Your task to perform on an android device: open app "Etsy: Buy & Sell Unique Items" Image 0: 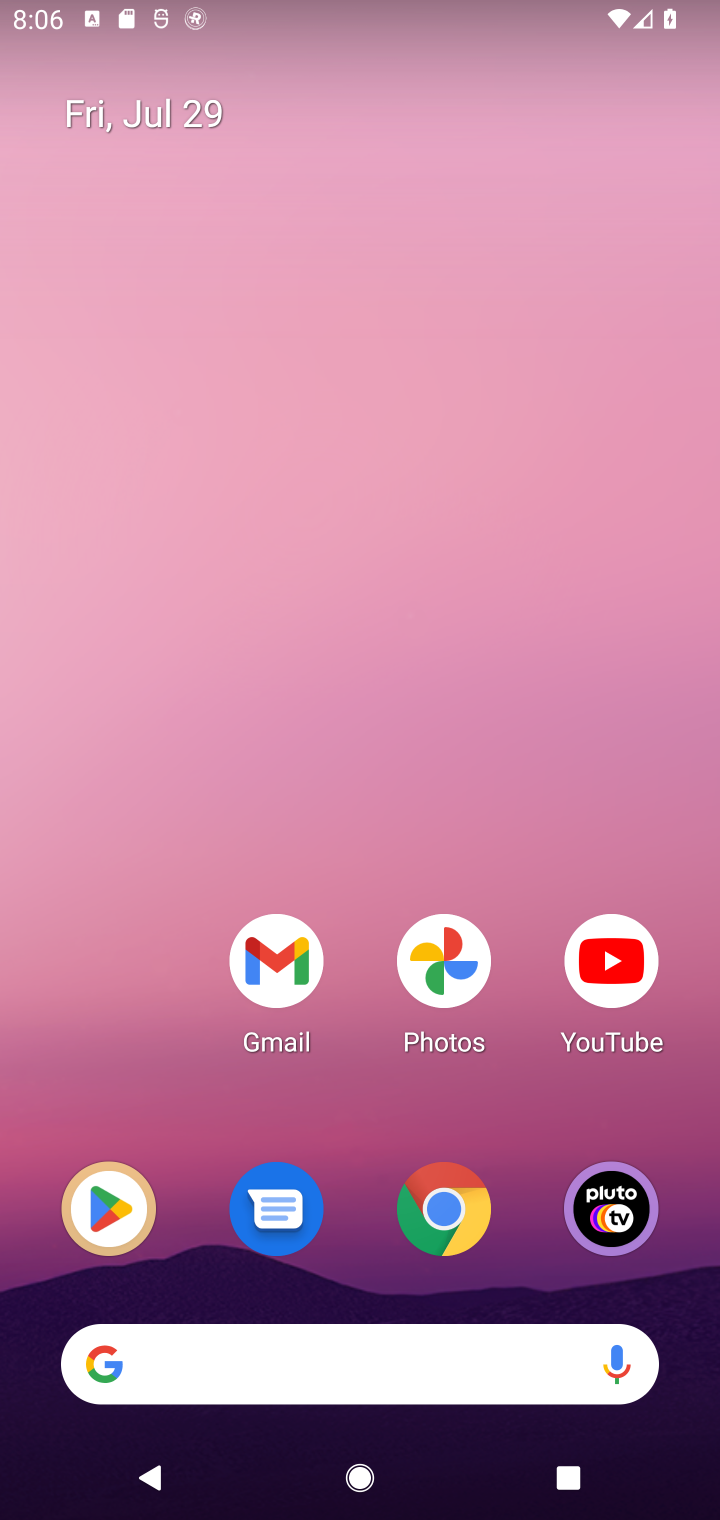
Step 0: click (103, 1221)
Your task to perform on an android device: open app "Etsy: Buy & Sell Unique Items" Image 1: 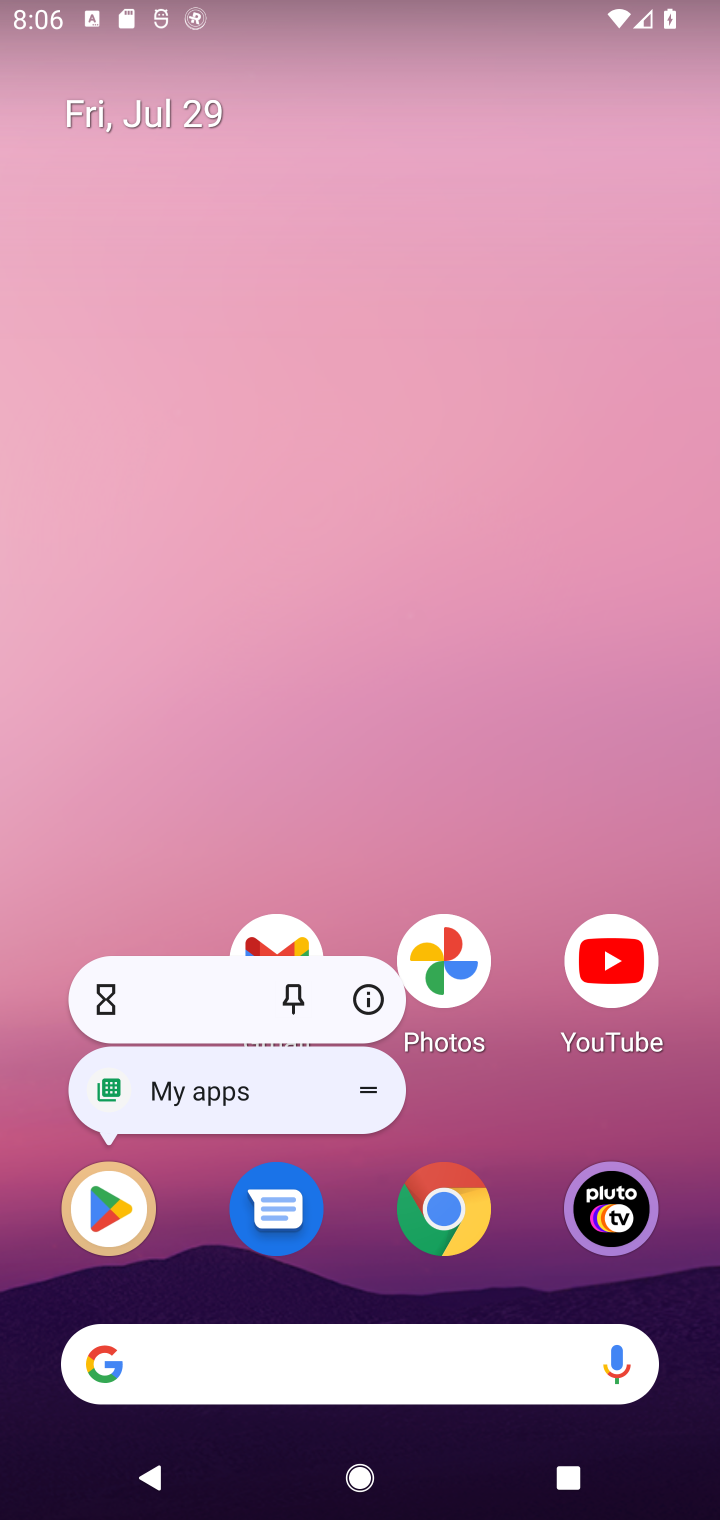
Step 1: click (103, 1221)
Your task to perform on an android device: open app "Etsy: Buy & Sell Unique Items" Image 2: 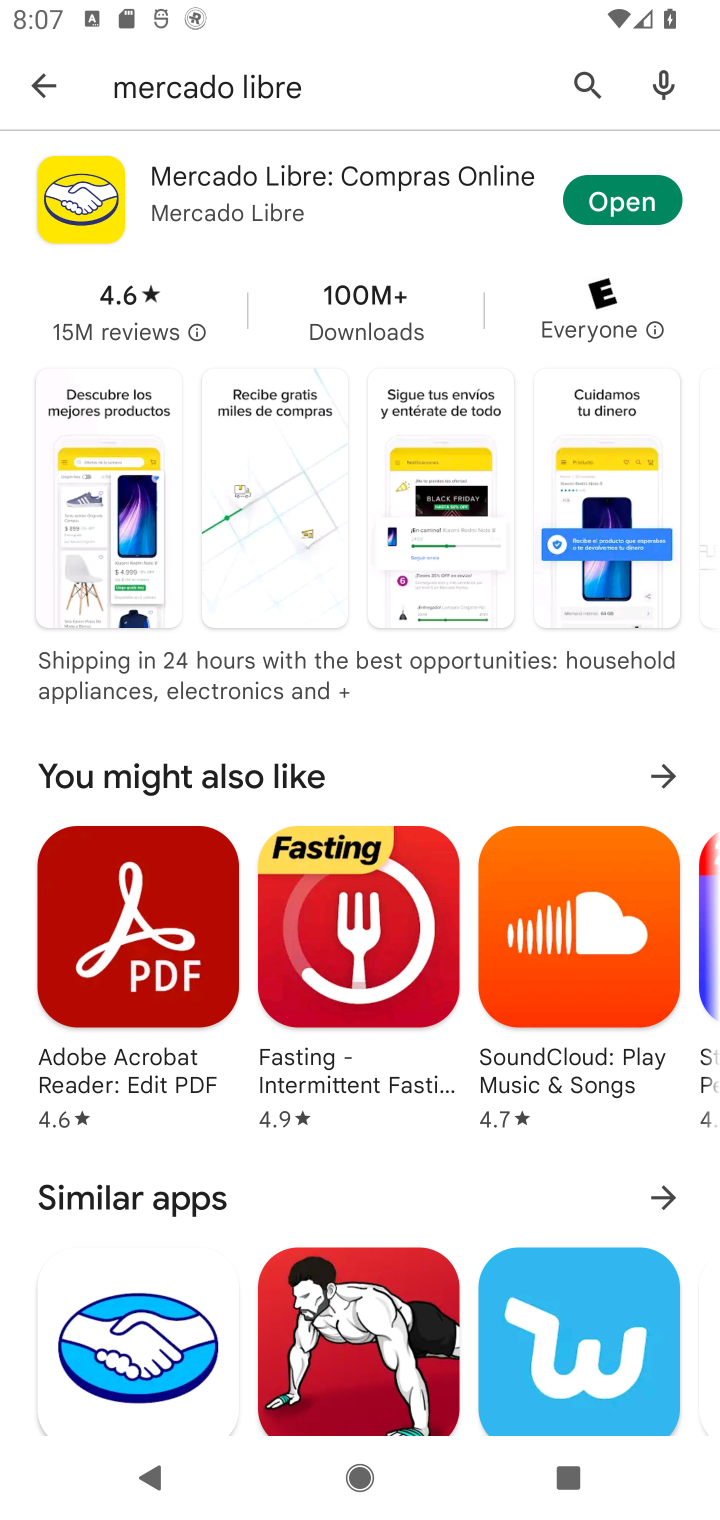
Step 2: click (574, 90)
Your task to perform on an android device: open app "Etsy: Buy & Sell Unique Items" Image 3: 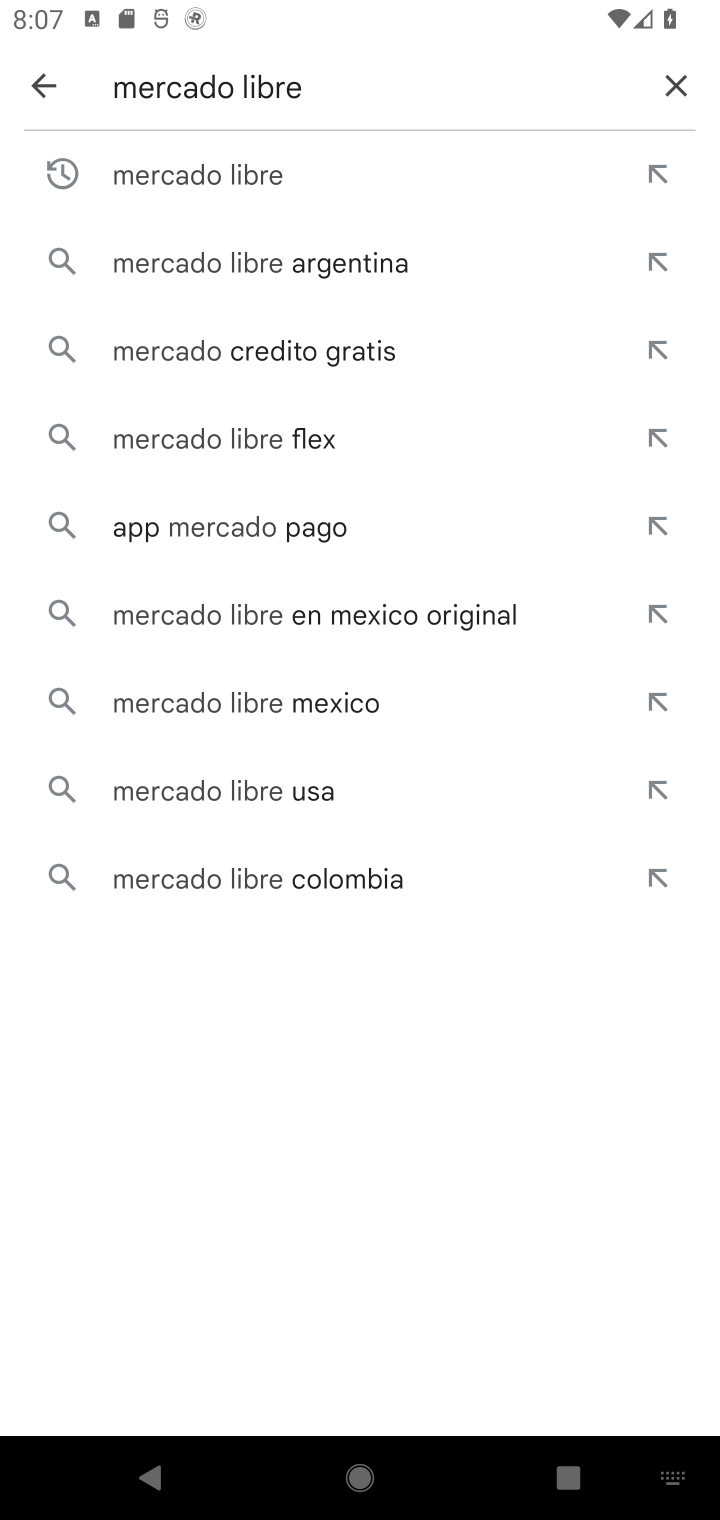
Step 3: click (662, 80)
Your task to perform on an android device: open app "Etsy: Buy & Sell Unique Items" Image 4: 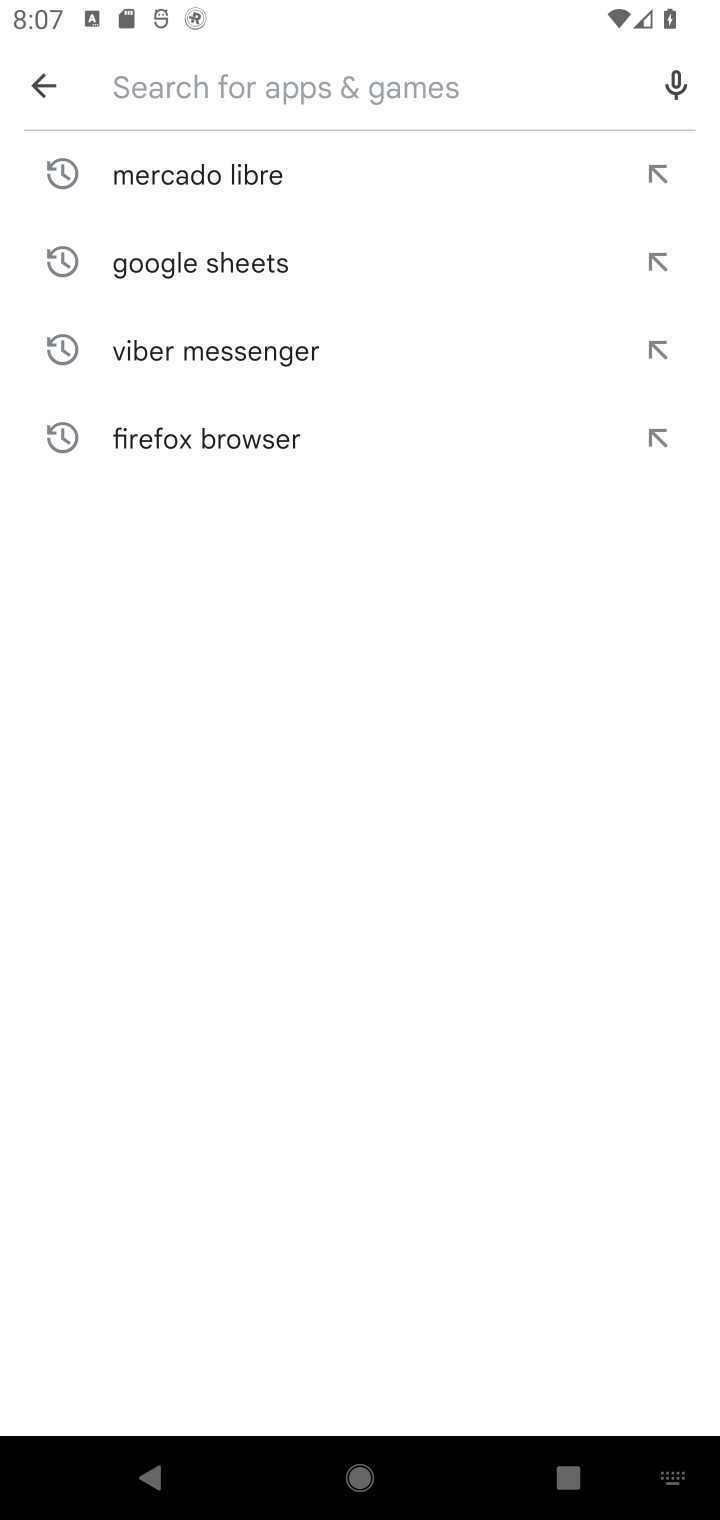
Step 4: type "Etsy: Buy & Sell Unique Items"
Your task to perform on an android device: open app "Etsy: Buy & Sell Unique Items" Image 5: 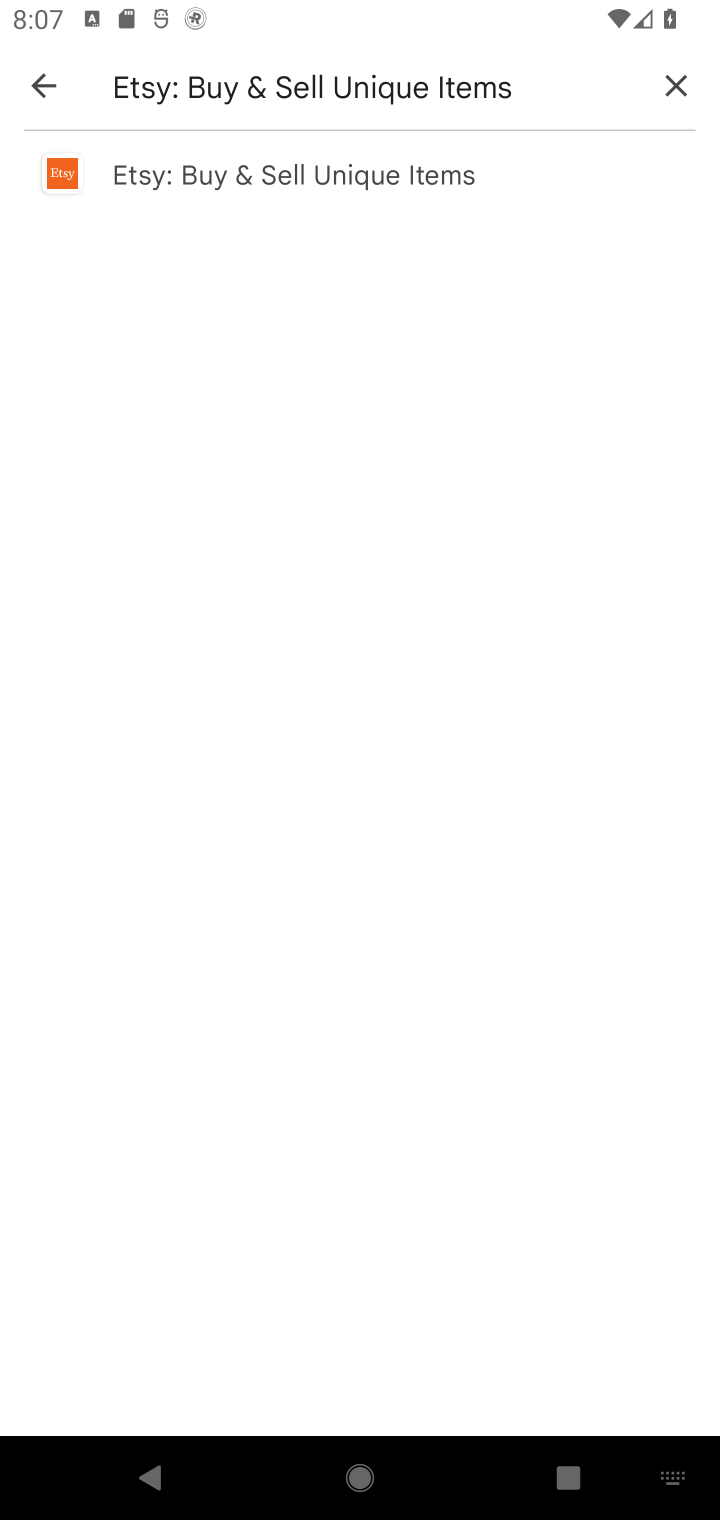
Step 5: click (170, 189)
Your task to perform on an android device: open app "Etsy: Buy & Sell Unique Items" Image 6: 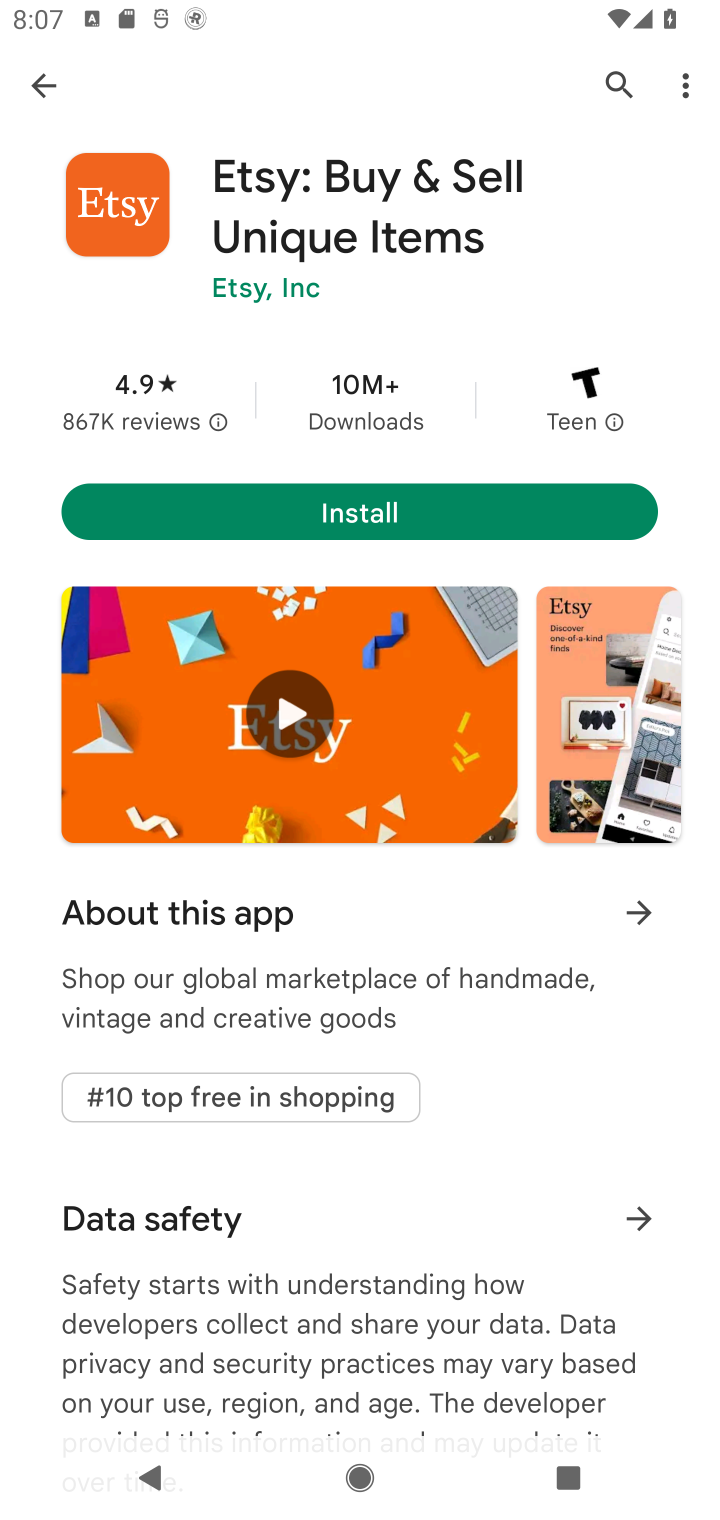
Step 6: task complete